Your task to perform on an android device: see sites visited before in the chrome app Image 0: 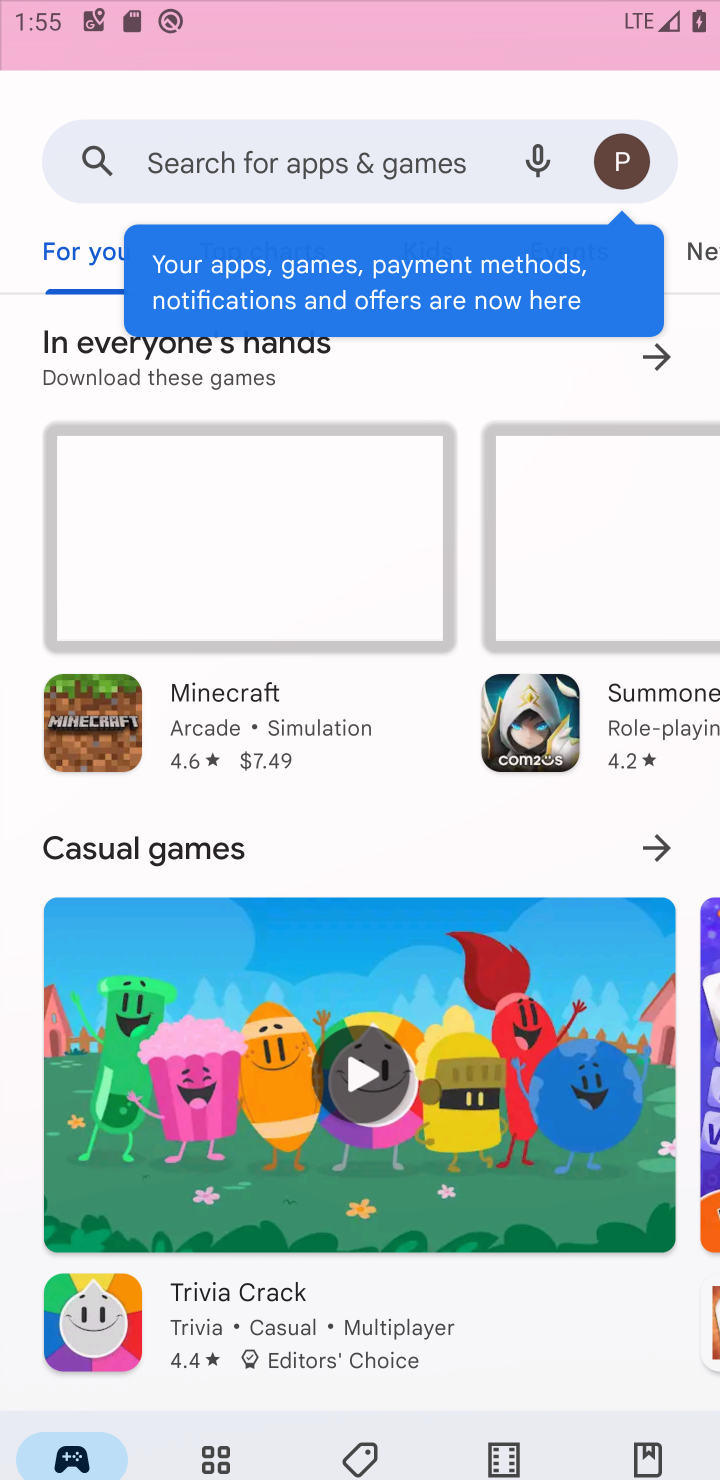
Step 0: press home button
Your task to perform on an android device: see sites visited before in the chrome app Image 1: 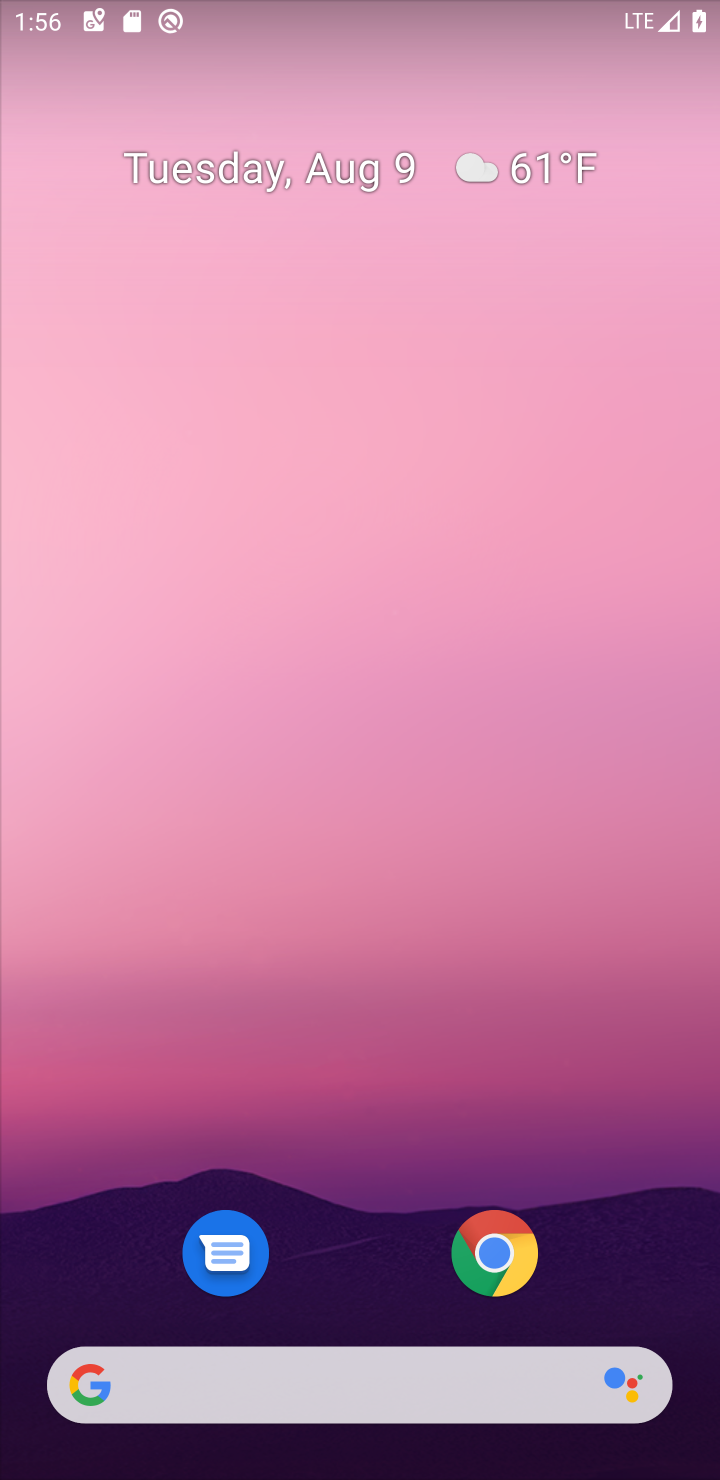
Step 1: drag from (490, 578) to (348, 55)
Your task to perform on an android device: see sites visited before in the chrome app Image 2: 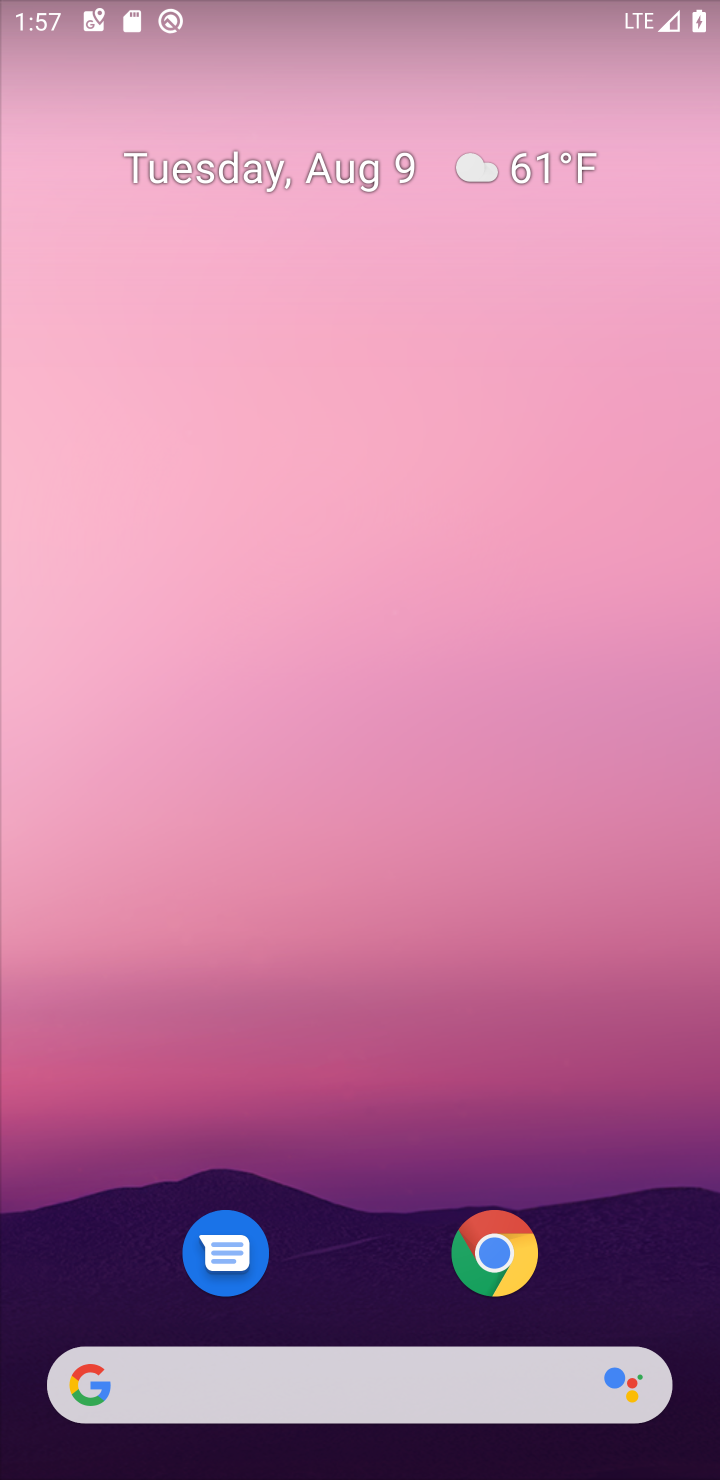
Step 2: drag from (523, 685) to (368, 18)
Your task to perform on an android device: see sites visited before in the chrome app Image 3: 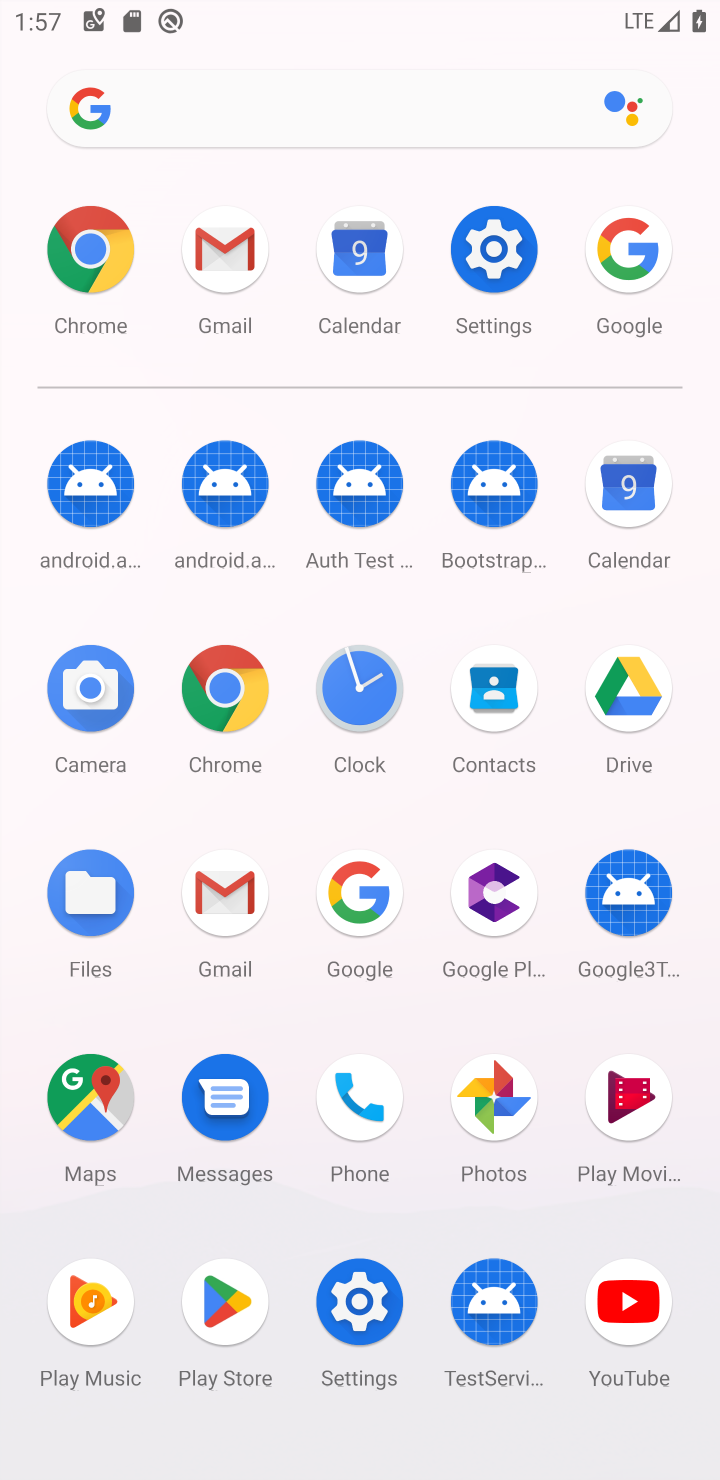
Step 3: click (222, 675)
Your task to perform on an android device: see sites visited before in the chrome app Image 4: 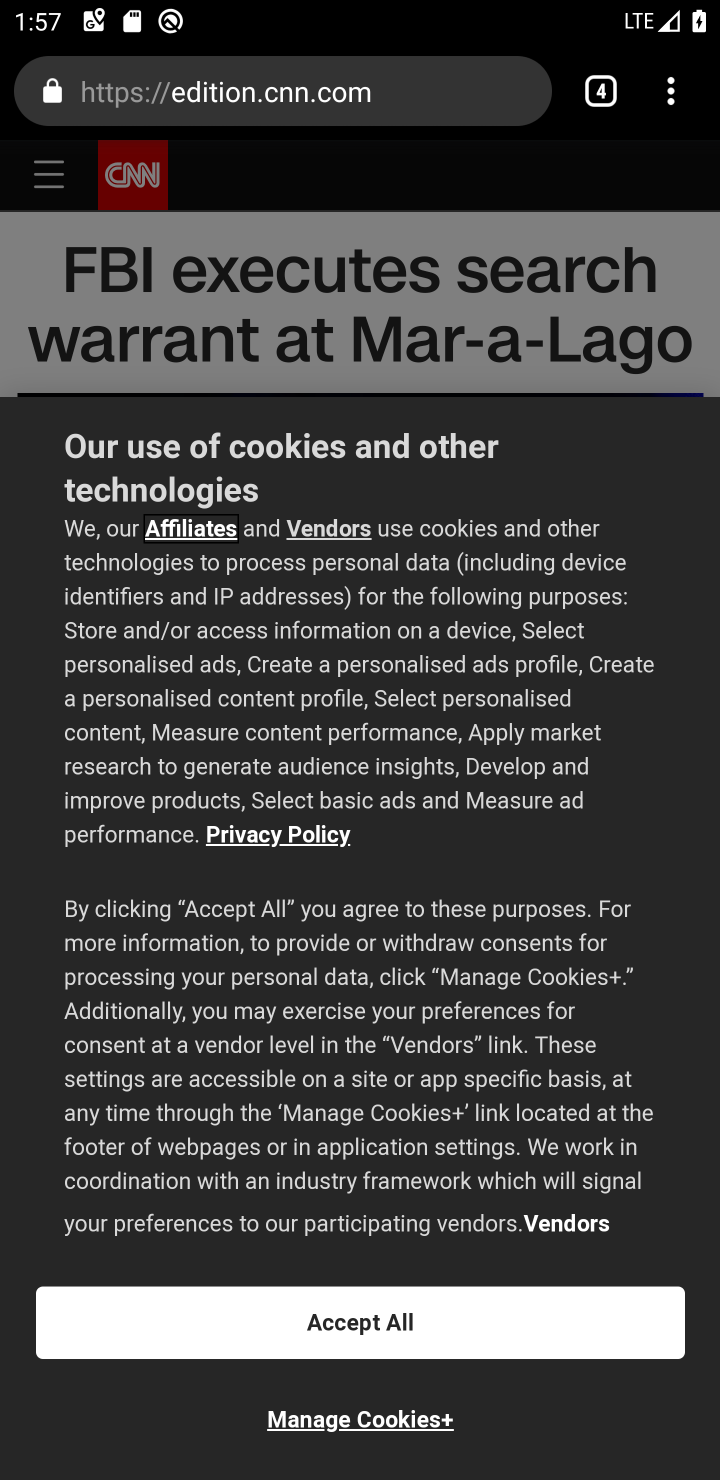
Step 4: task complete